Your task to perform on an android device: turn off smart reply in the gmail app Image 0: 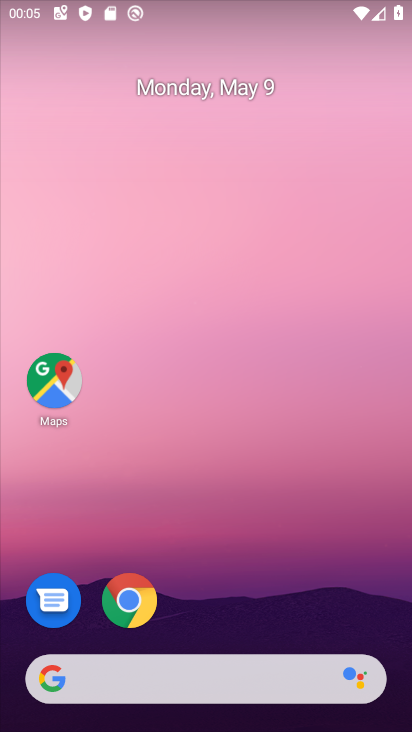
Step 0: drag from (196, 634) to (166, 157)
Your task to perform on an android device: turn off smart reply in the gmail app Image 1: 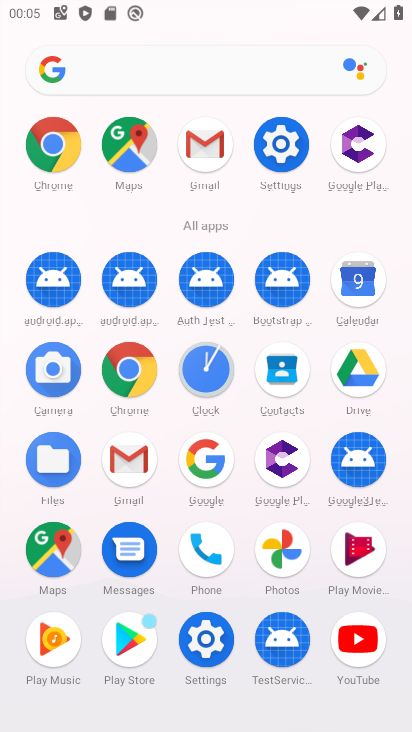
Step 1: click (199, 153)
Your task to perform on an android device: turn off smart reply in the gmail app Image 2: 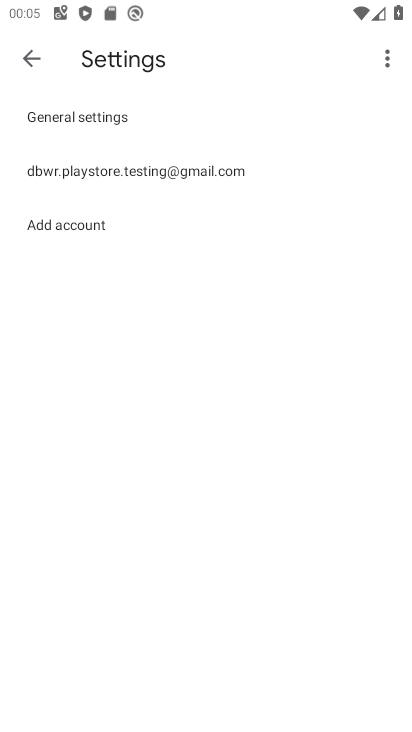
Step 2: click (207, 168)
Your task to perform on an android device: turn off smart reply in the gmail app Image 3: 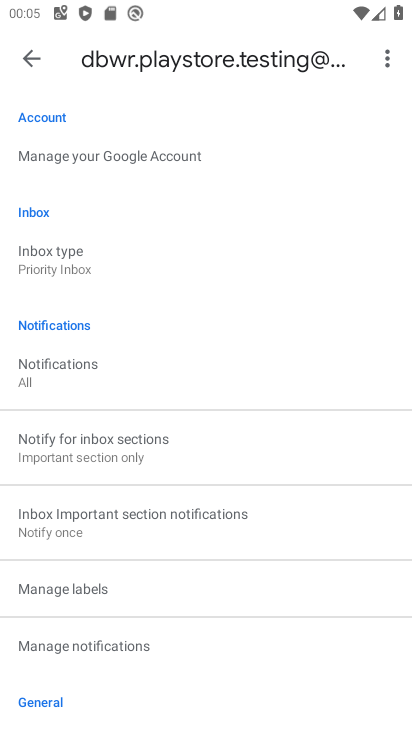
Step 3: drag from (237, 646) to (222, 273)
Your task to perform on an android device: turn off smart reply in the gmail app Image 4: 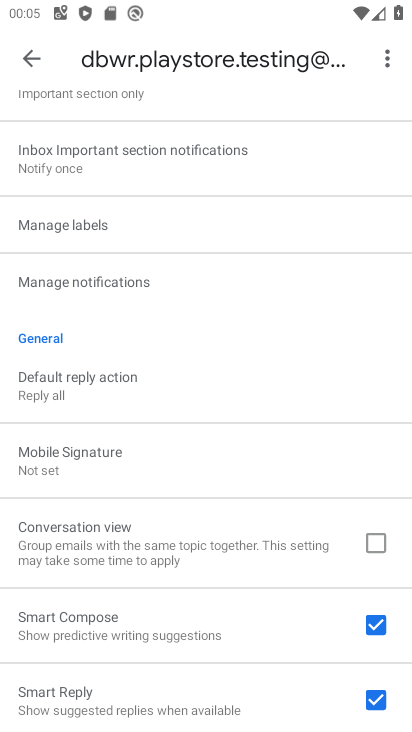
Step 4: drag from (250, 606) to (243, 339)
Your task to perform on an android device: turn off smart reply in the gmail app Image 5: 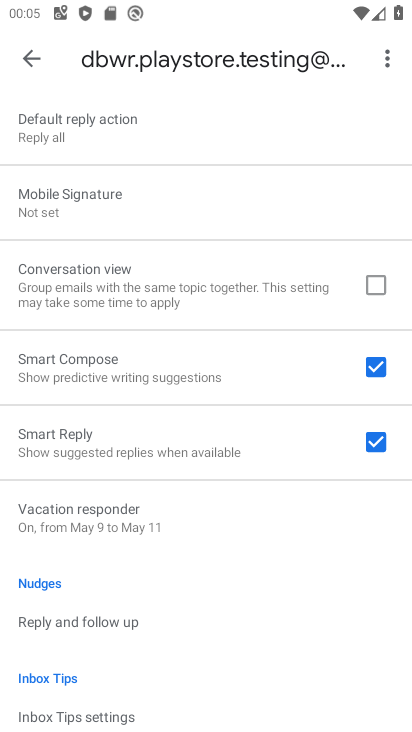
Step 5: click (388, 454)
Your task to perform on an android device: turn off smart reply in the gmail app Image 6: 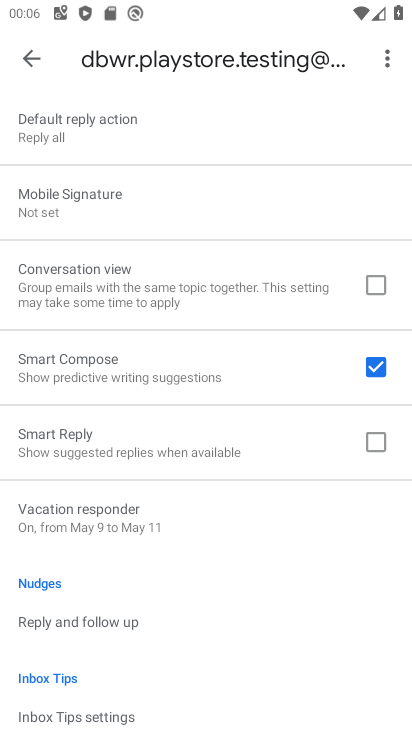
Step 6: task complete